Your task to perform on an android device: Play the last video I watched on Youtube Image 0: 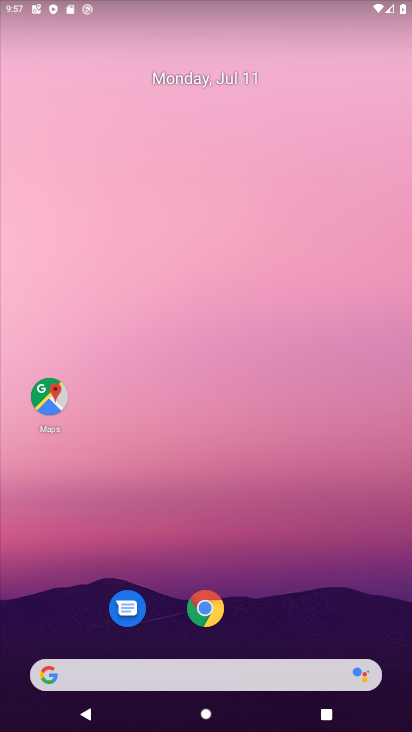
Step 0: drag from (54, 664) to (354, 58)
Your task to perform on an android device: Play the last video I watched on Youtube Image 1: 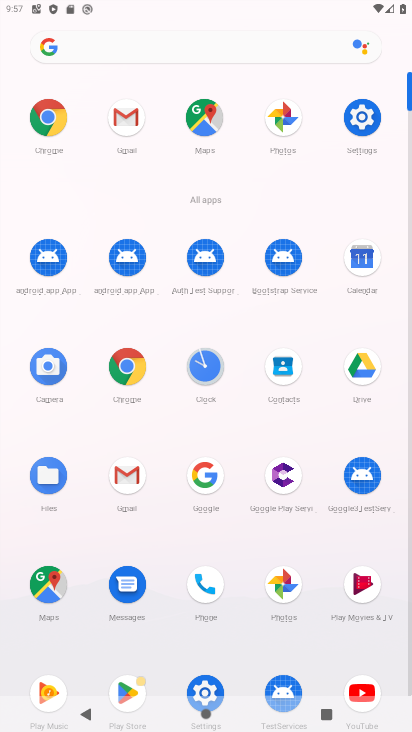
Step 1: click (350, 693)
Your task to perform on an android device: Play the last video I watched on Youtube Image 2: 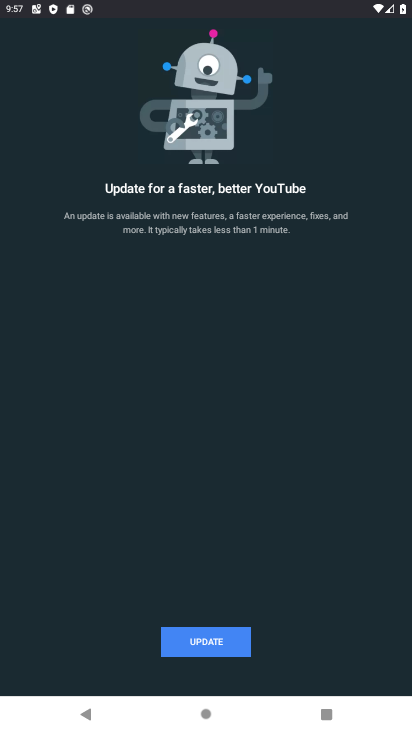
Step 2: click (209, 638)
Your task to perform on an android device: Play the last video I watched on Youtube Image 3: 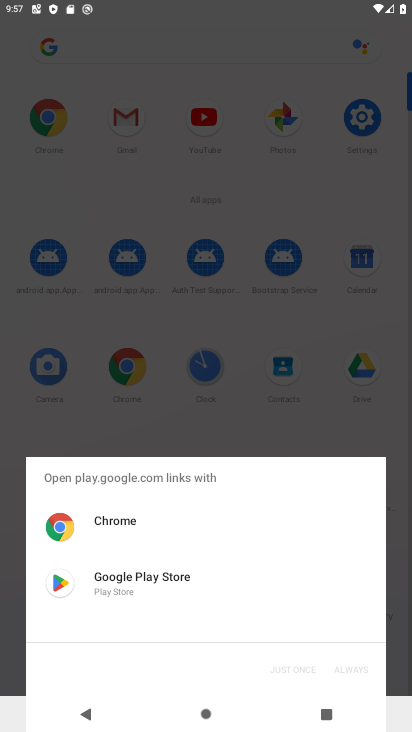
Step 3: click (136, 574)
Your task to perform on an android device: Play the last video I watched on Youtube Image 4: 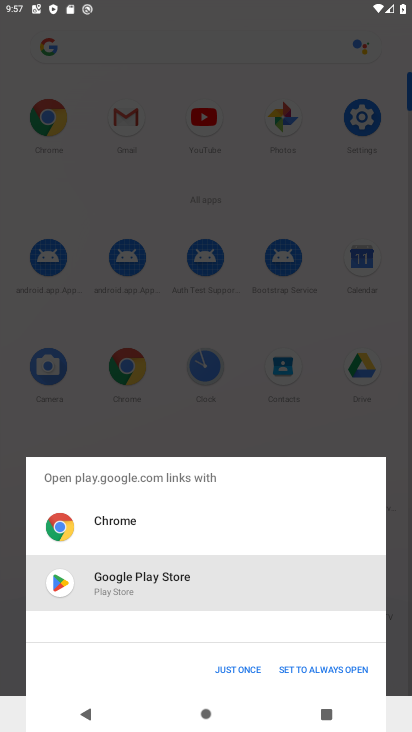
Step 4: click (240, 672)
Your task to perform on an android device: Play the last video I watched on Youtube Image 5: 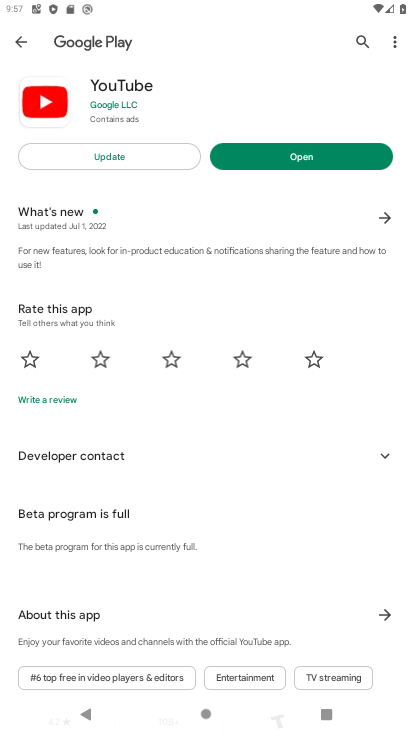
Step 5: click (281, 159)
Your task to perform on an android device: Play the last video I watched on Youtube Image 6: 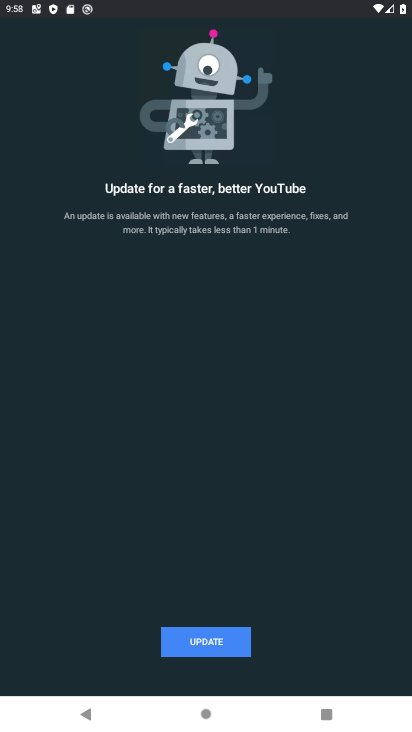
Step 6: task complete